Your task to perform on an android device: turn on airplane mode Image 0: 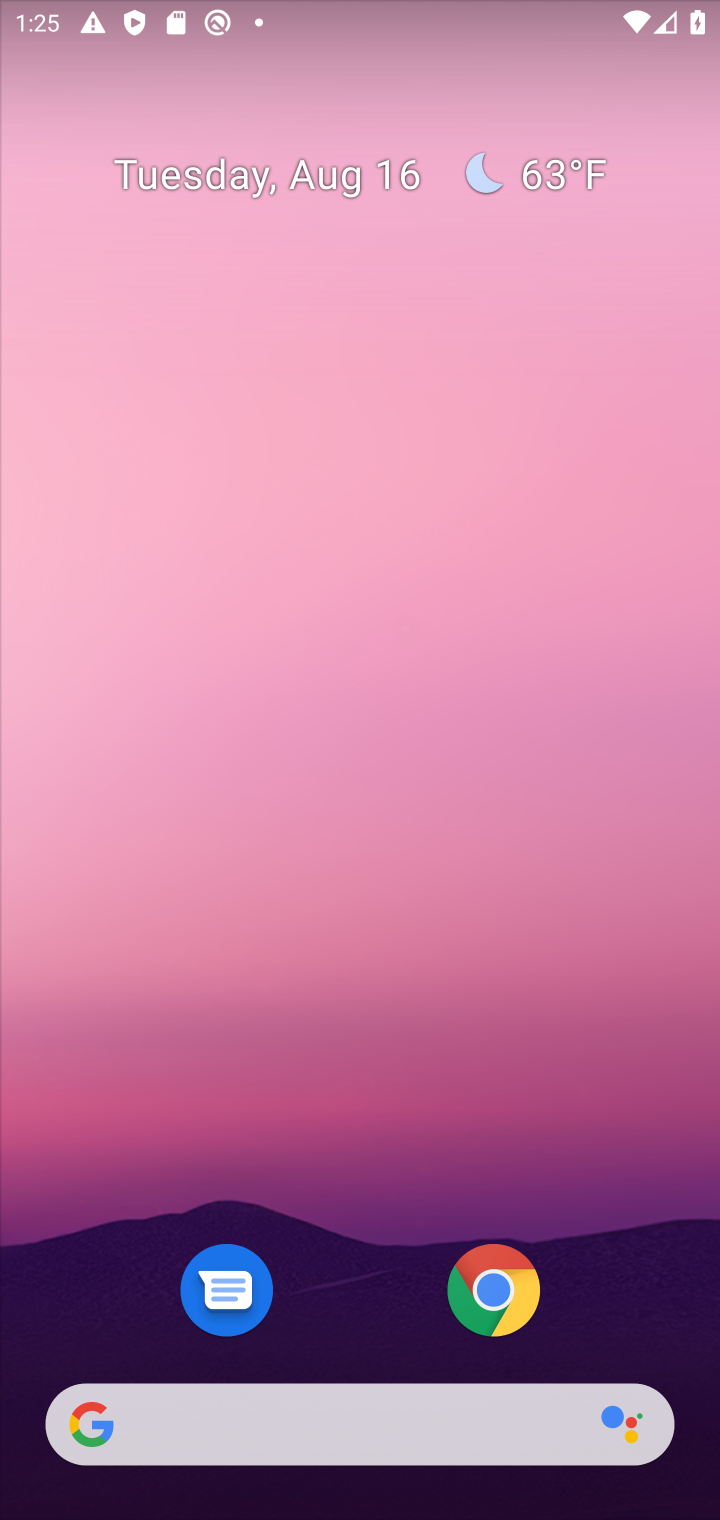
Step 0: drag from (42, 1194) to (421, 31)
Your task to perform on an android device: turn on airplane mode Image 1: 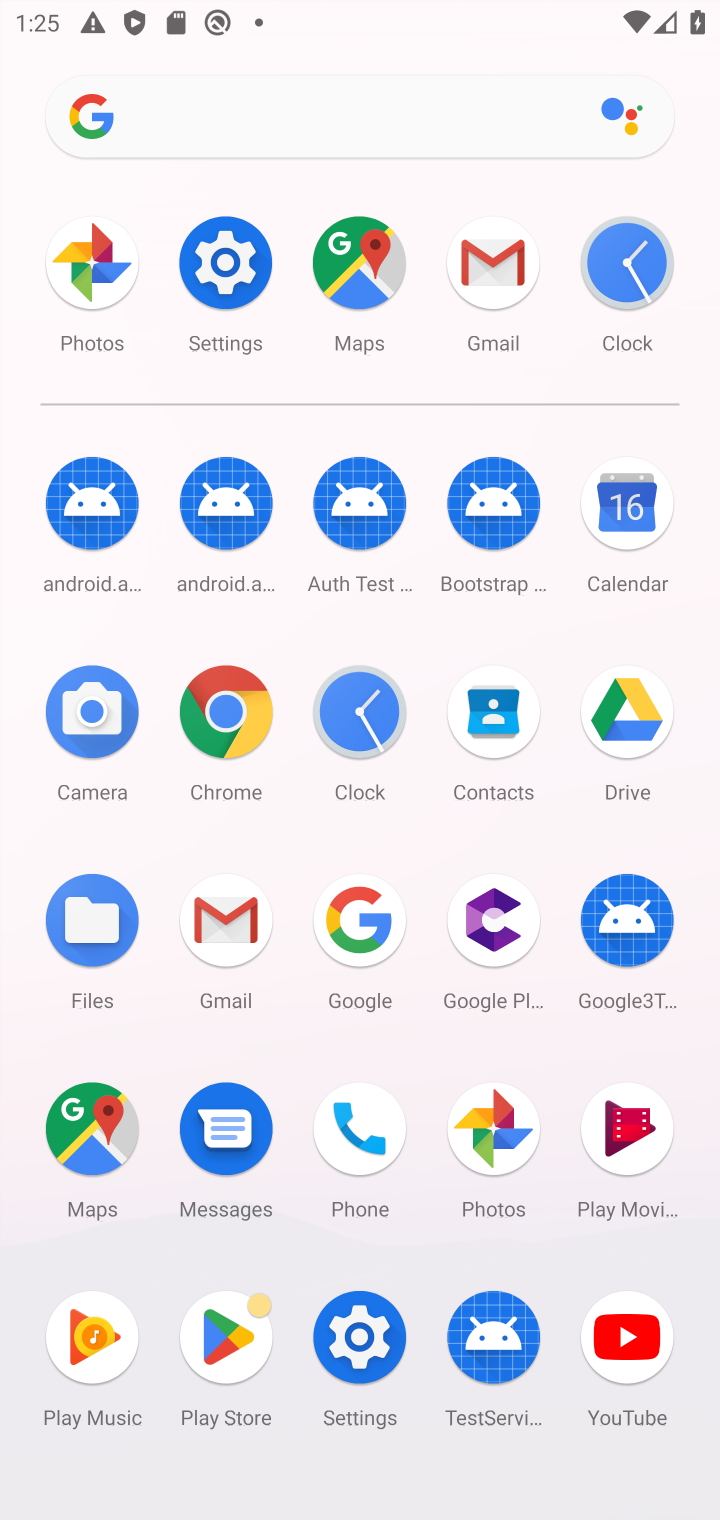
Step 1: click (361, 1324)
Your task to perform on an android device: turn on airplane mode Image 2: 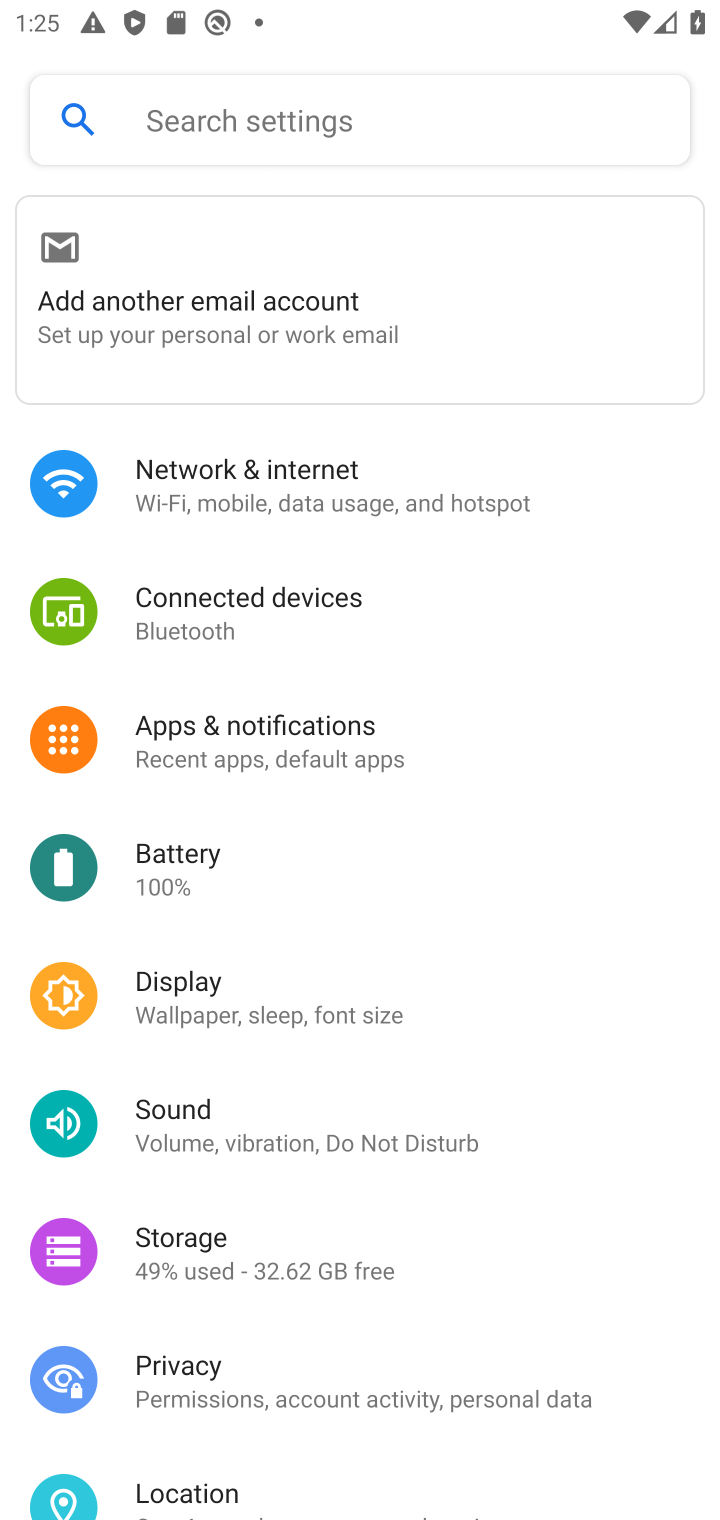
Step 2: click (326, 489)
Your task to perform on an android device: turn on airplane mode Image 3: 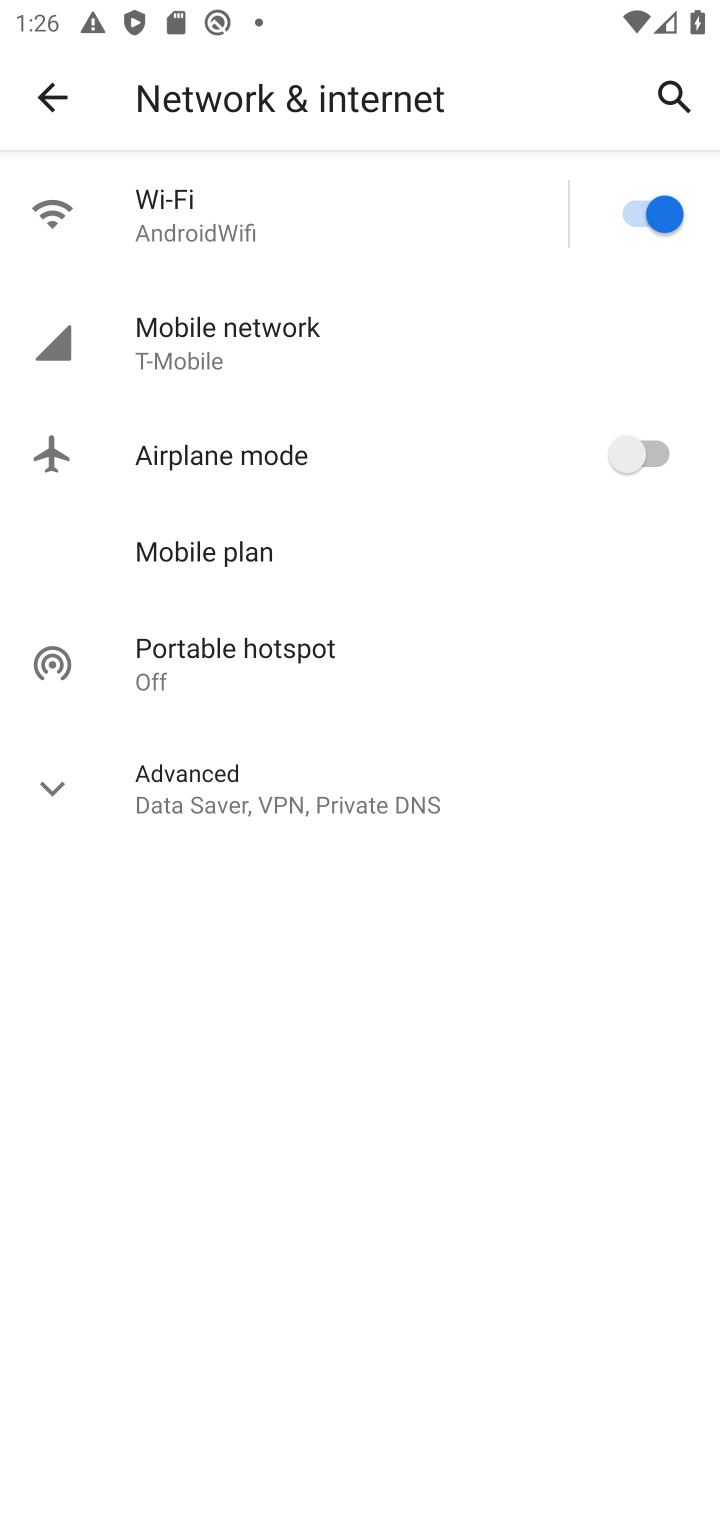
Step 3: click (629, 453)
Your task to perform on an android device: turn on airplane mode Image 4: 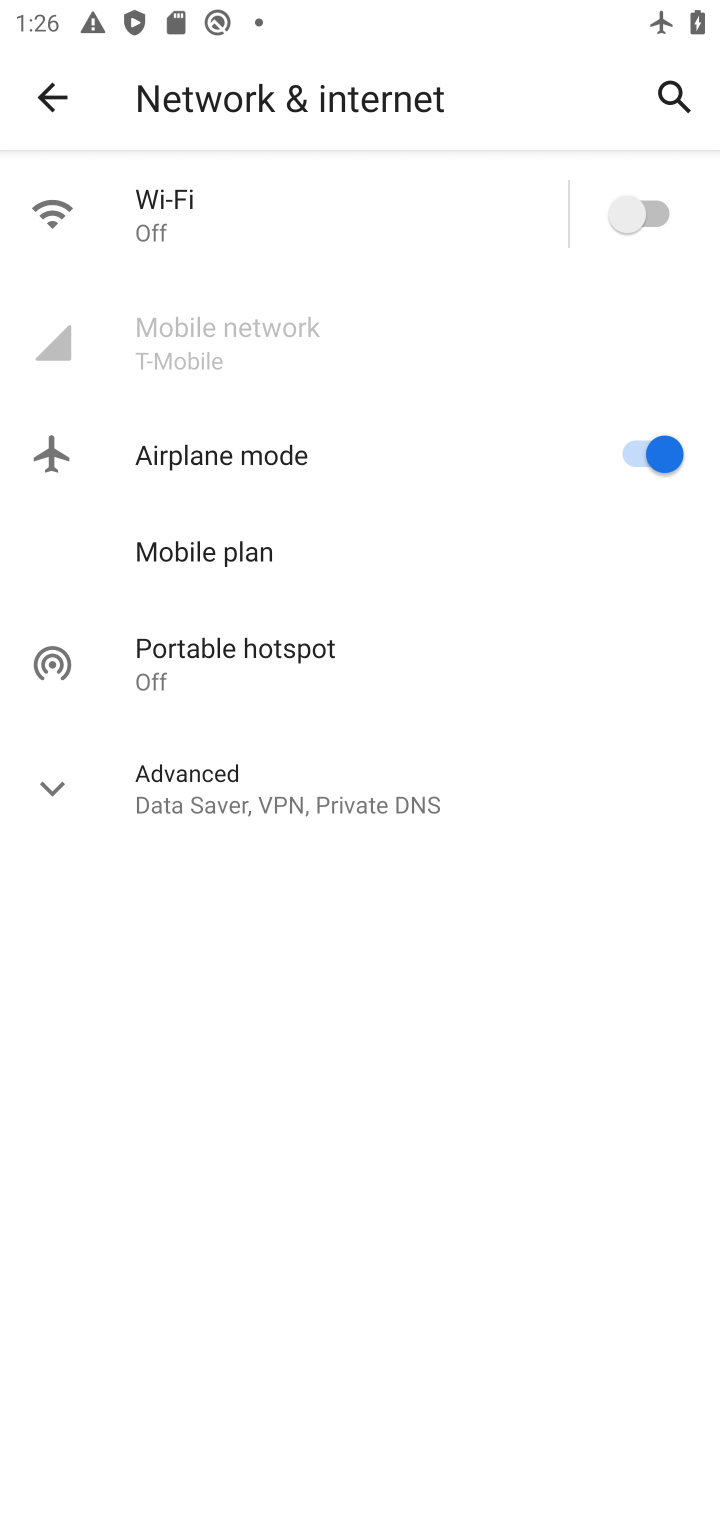
Step 4: task complete